Your task to perform on an android device: turn off data saver in the chrome app Image 0: 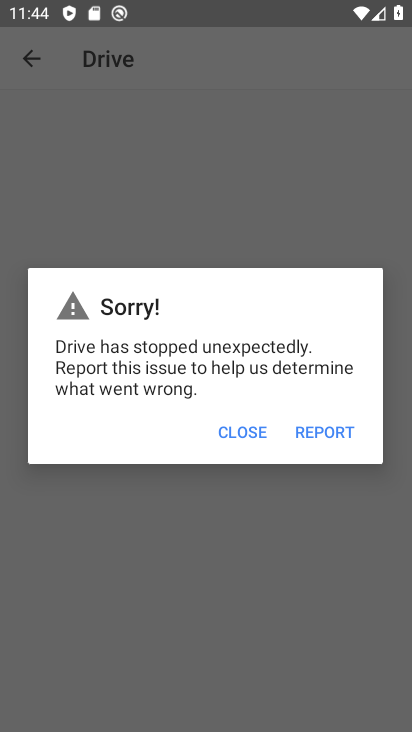
Step 0: press home button
Your task to perform on an android device: turn off data saver in the chrome app Image 1: 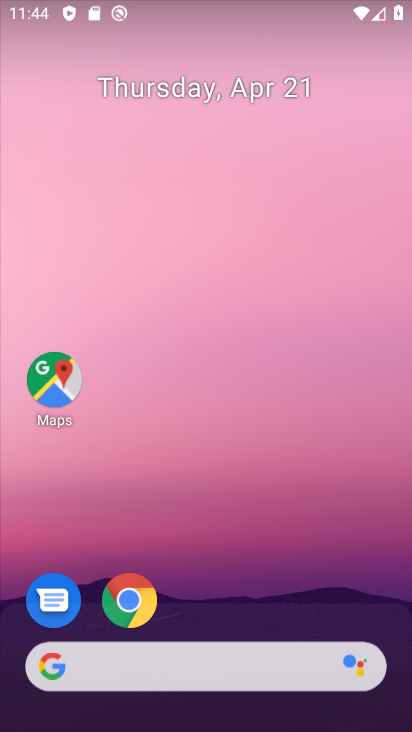
Step 1: drag from (382, 492) to (361, 325)
Your task to perform on an android device: turn off data saver in the chrome app Image 2: 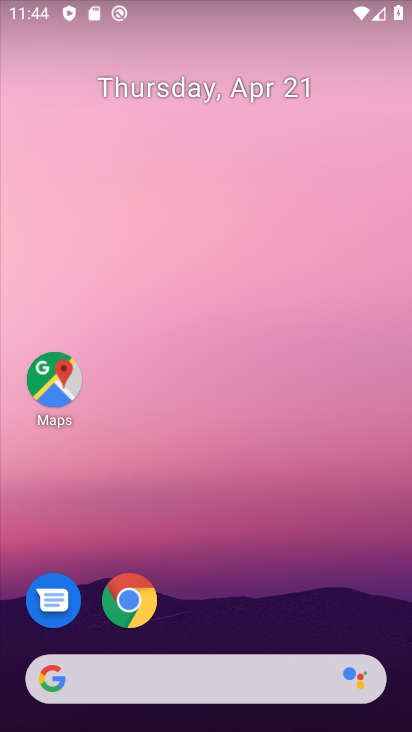
Step 2: click (138, 599)
Your task to perform on an android device: turn off data saver in the chrome app Image 3: 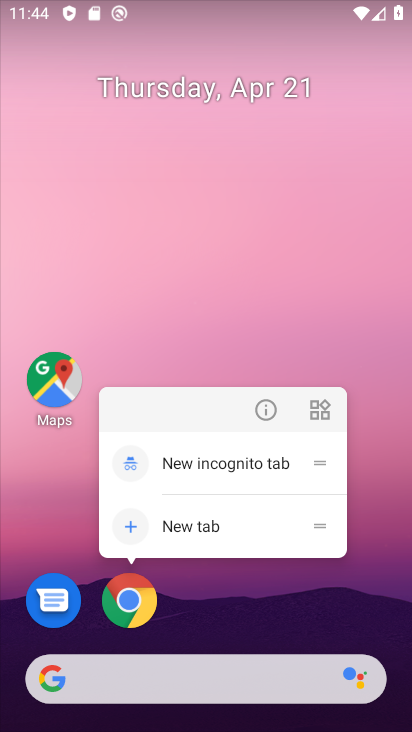
Step 3: click (134, 595)
Your task to perform on an android device: turn off data saver in the chrome app Image 4: 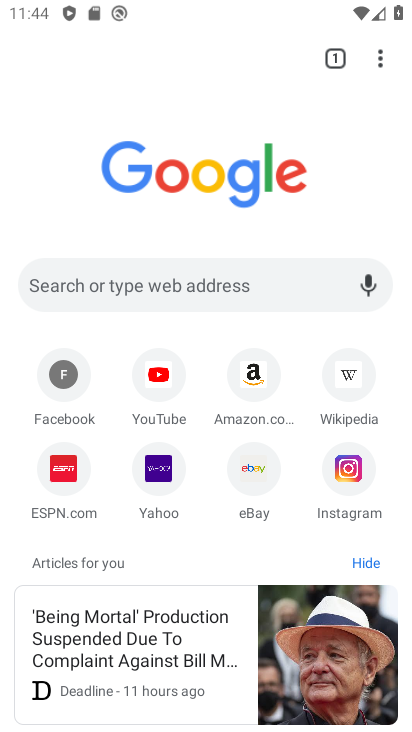
Step 4: click (380, 55)
Your task to perform on an android device: turn off data saver in the chrome app Image 5: 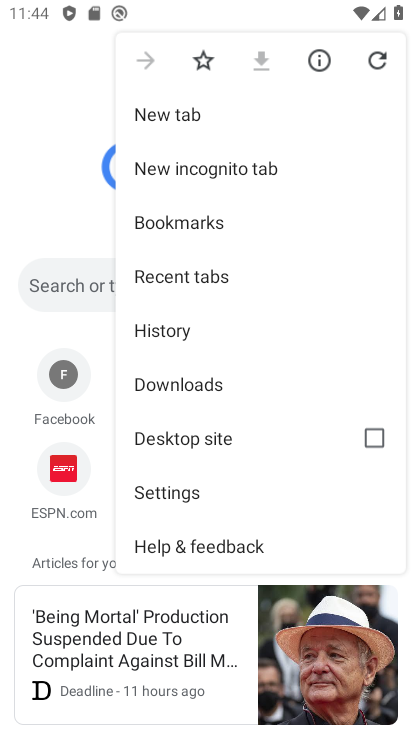
Step 5: click (186, 492)
Your task to perform on an android device: turn off data saver in the chrome app Image 6: 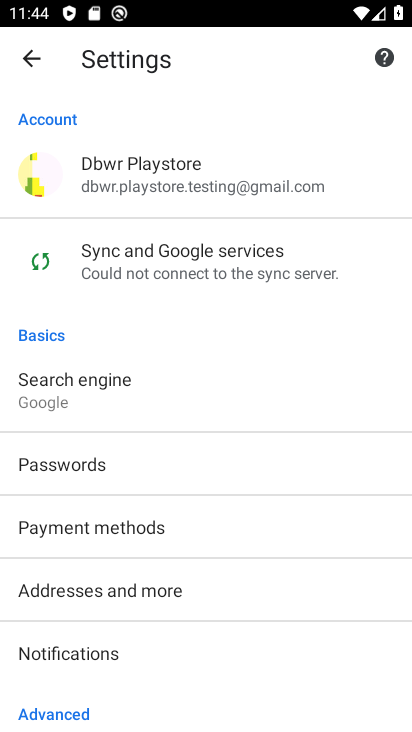
Step 6: drag from (269, 680) to (284, 366)
Your task to perform on an android device: turn off data saver in the chrome app Image 7: 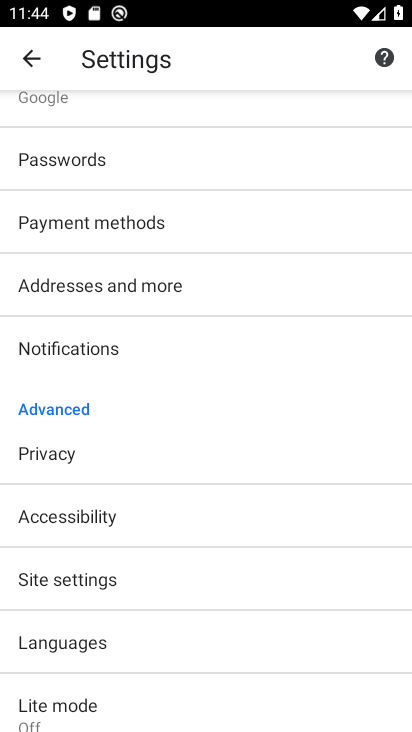
Step 7: click (73, 643)
Your task to perform on an android device: turn off data saver in the chrome app Image 8: 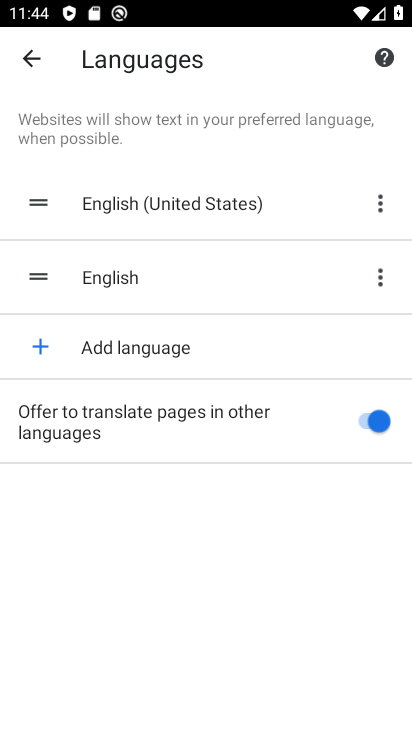
Step 8: click (30, 54)
Your task to perform on an android device: turn off data saver in the chrome app Image 9: 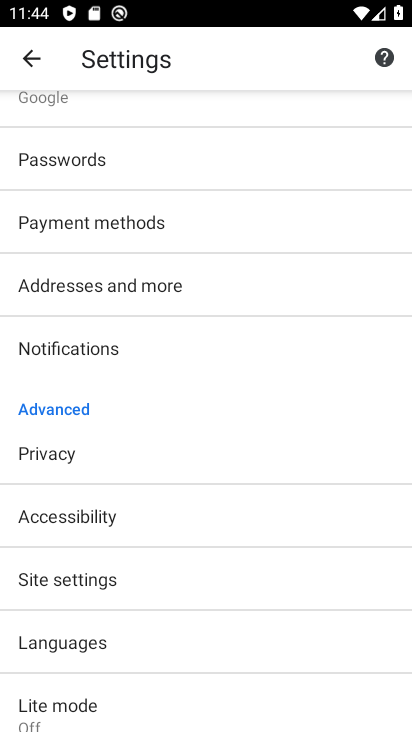
Step 9: drag from (187, 560) to (189, 385)
Your task to perform on an android device: turn off data saver in the chrome app Image 10: 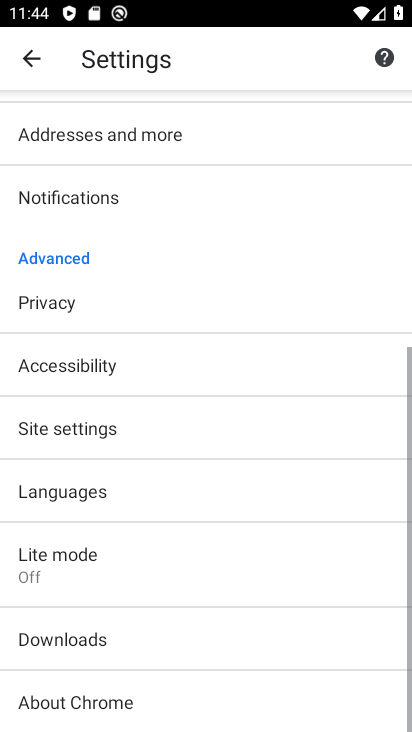
Step 10: click (39, 554)
Your task to perform on an android device: turn off data saver in the chrome app Image 11: 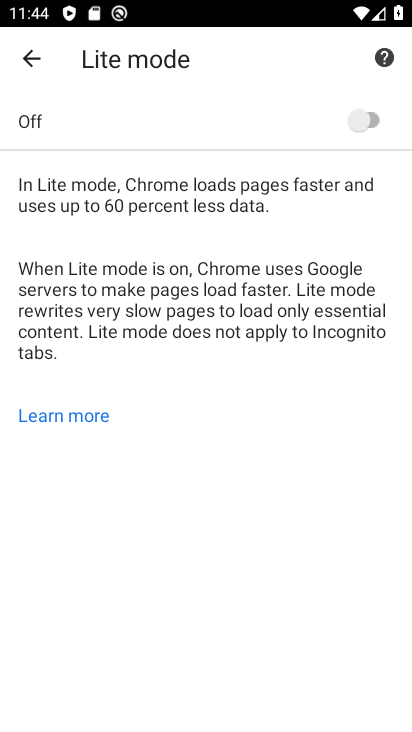
Step 11: click (375, 115)
Your task to perform on an android device: turn off data saver in the chrome app Image 12: 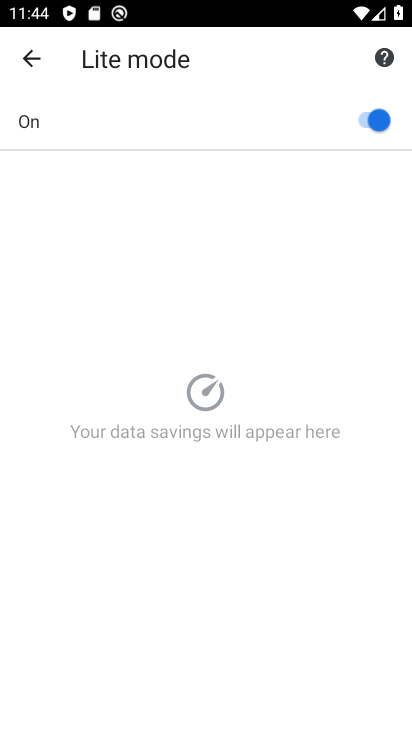
Step 12: click (365, 119)
Your task to perform on an android device: turn off data saver in the chrome app Image 13: 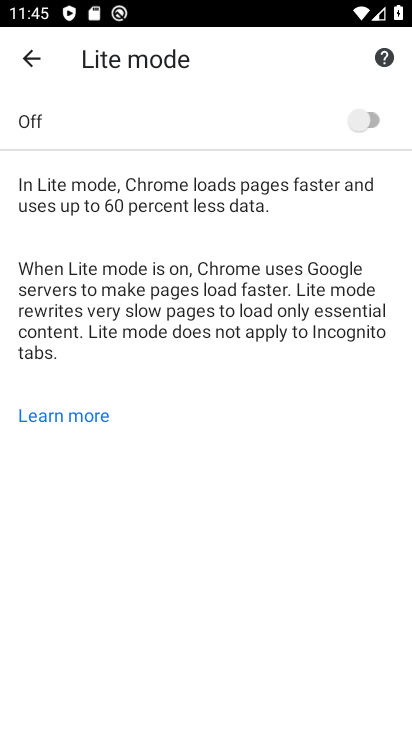
Step 13: task complete